Your task to perform on an android device: What's a good restaurant in New York? Image 0: 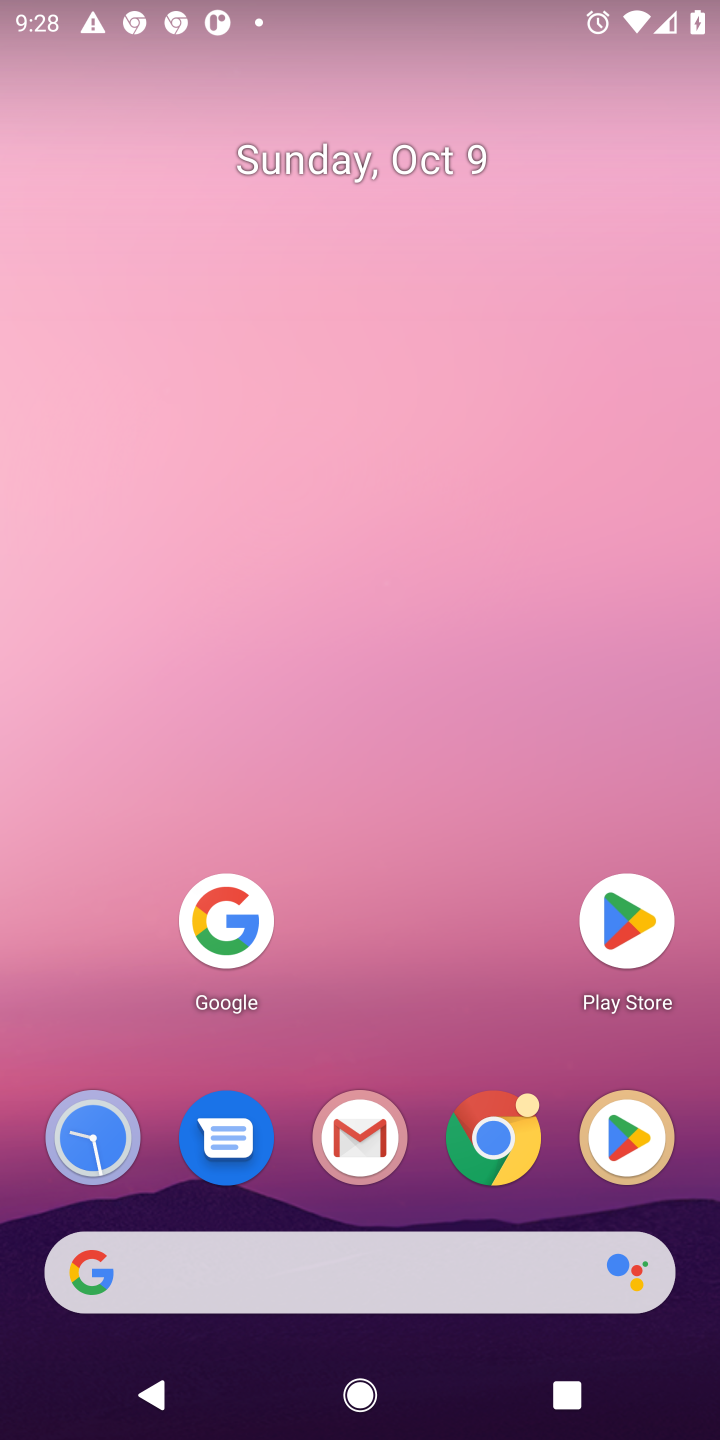
Step 0: click (230, 904)
Your task to perform on an android device: What's a good restaurant in New York? Image 1: 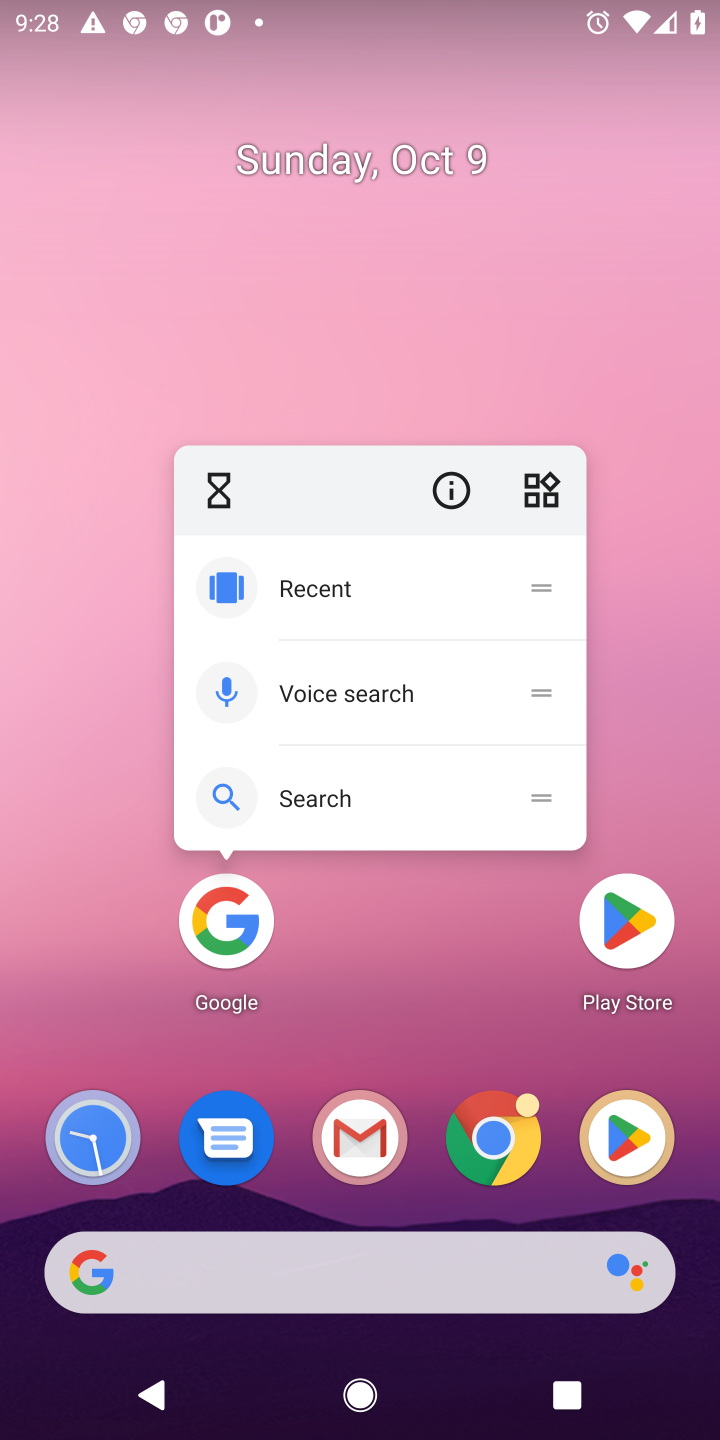
Step 1: click (219, 915)
Your task to perform on an android device: What's a good restaurant in New York? Image 2: 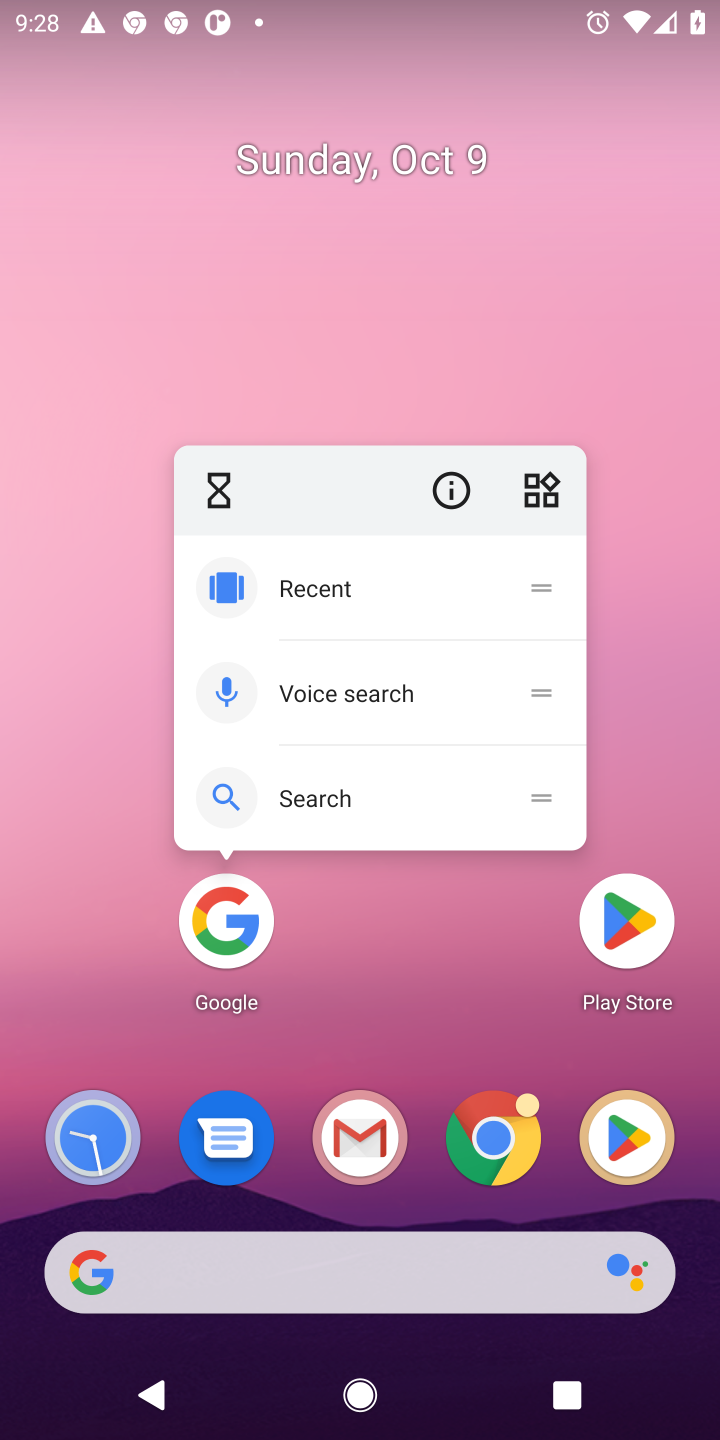
Step 2: click (219, 915)
Your task to perform on an android device: What's a good restaurant in New York? Image 3: 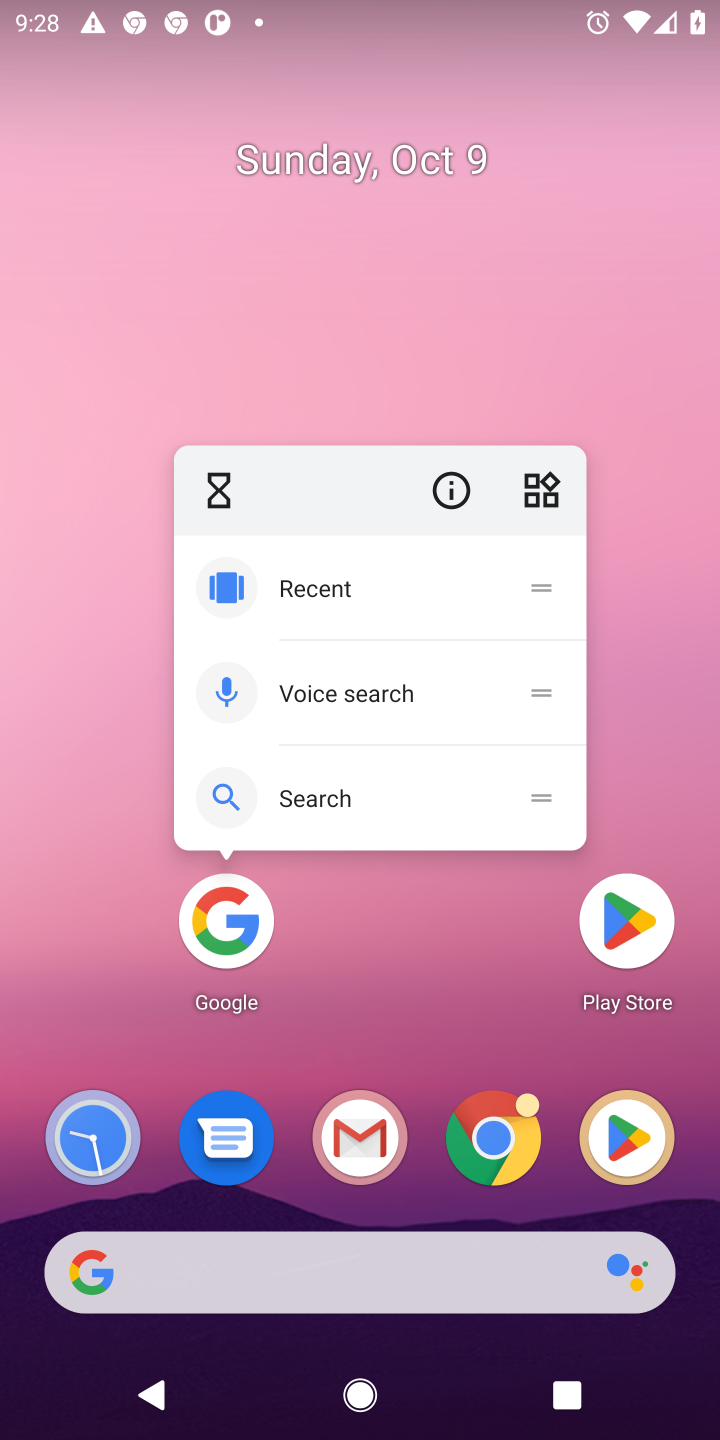
Step 3: click (219, 915)
Your task to perform on an android device: What's a good restaurant in New York? Image 4: 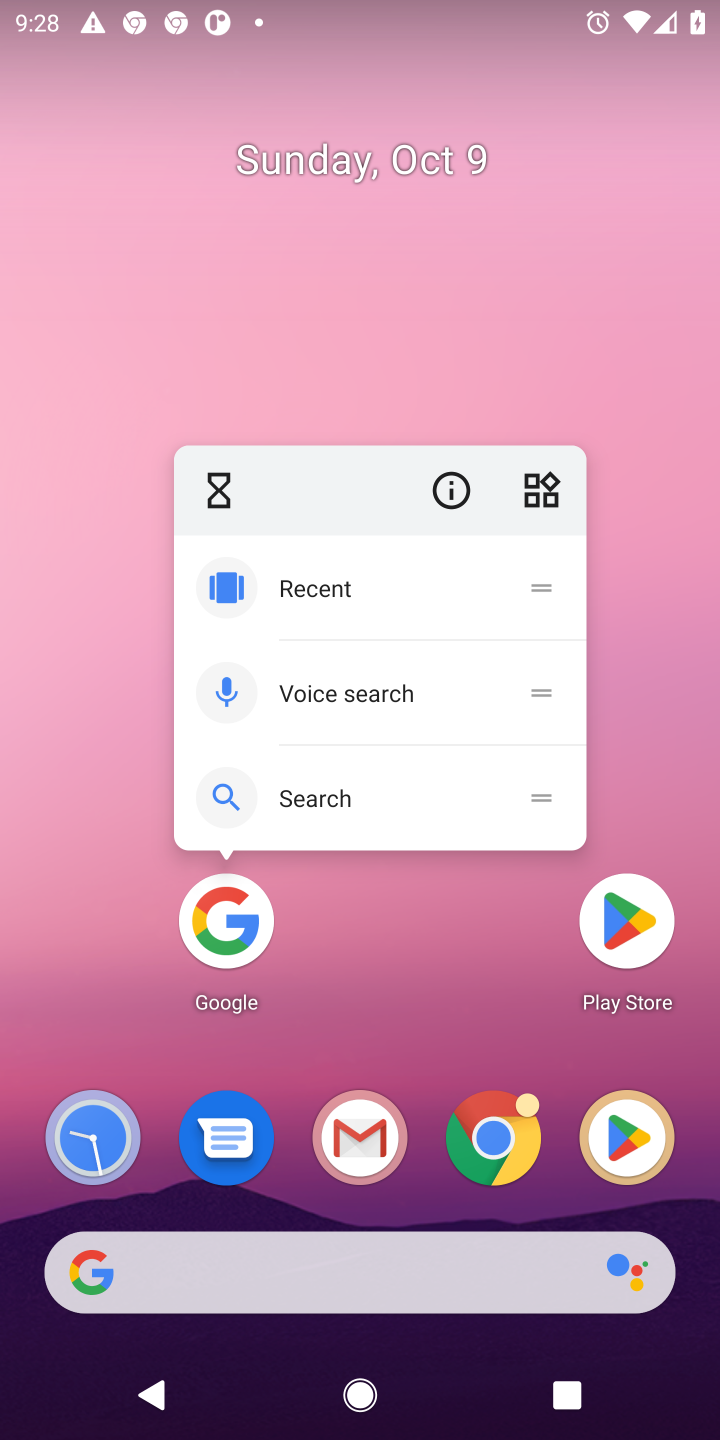
Step 4: click (221, 921)
Your task to perform on an android device: What's a good restaurant in New York? Image 5: 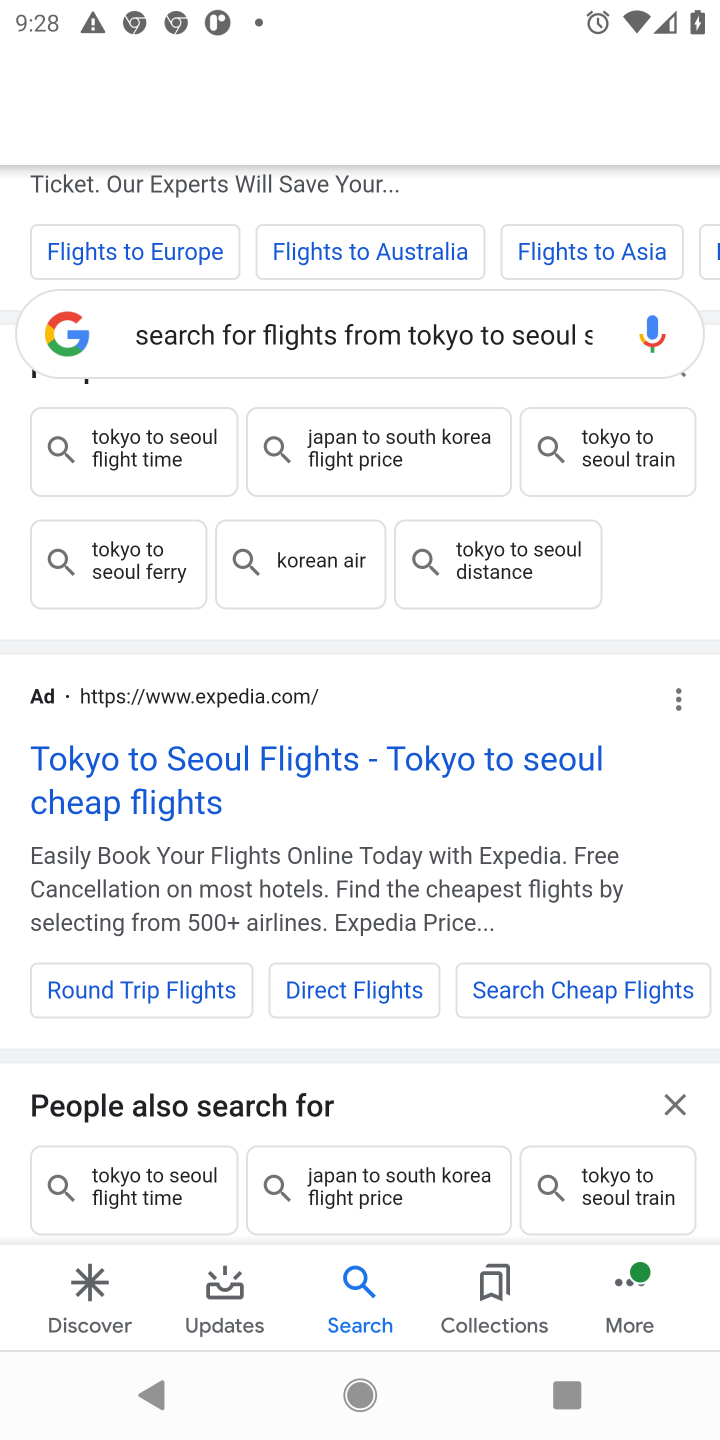
Step 5: click (464, 334)
Your task to perform on an android device: What's a good restaurant in New York? Image 6: 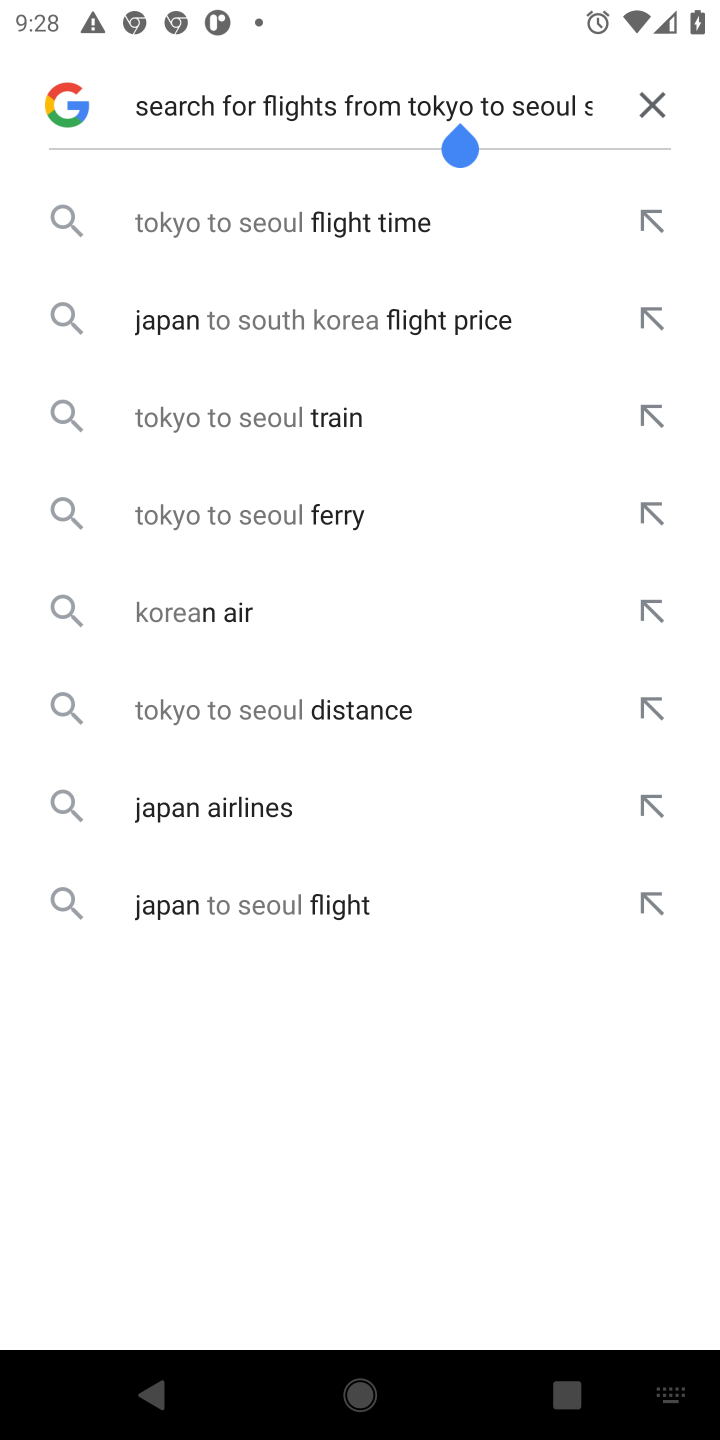
Step 6: click (649, 105)
Your task to perform on an android device: What's a good restaurant in New York? Image 7: 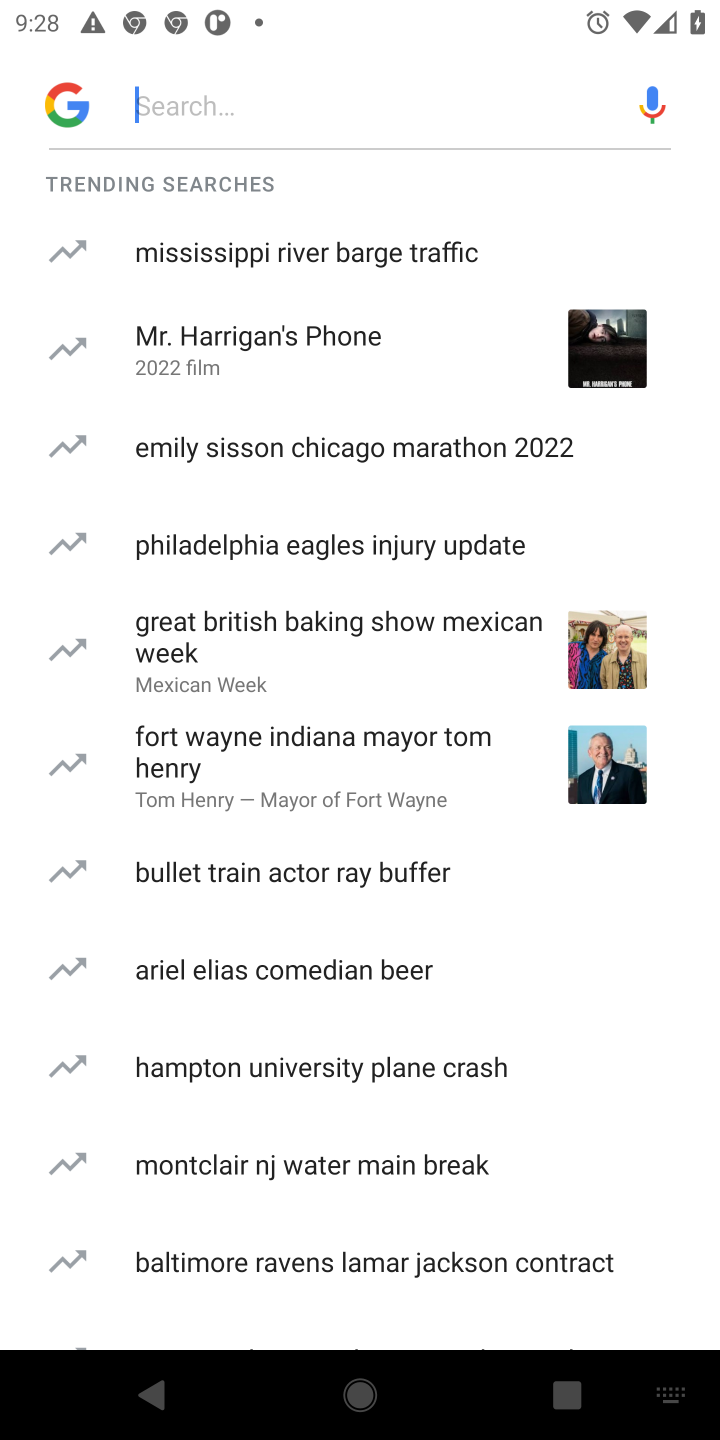
Step 7: click (348, 111)
Your task to perform on an android device: What's a good restaurant in New York? Image 8: 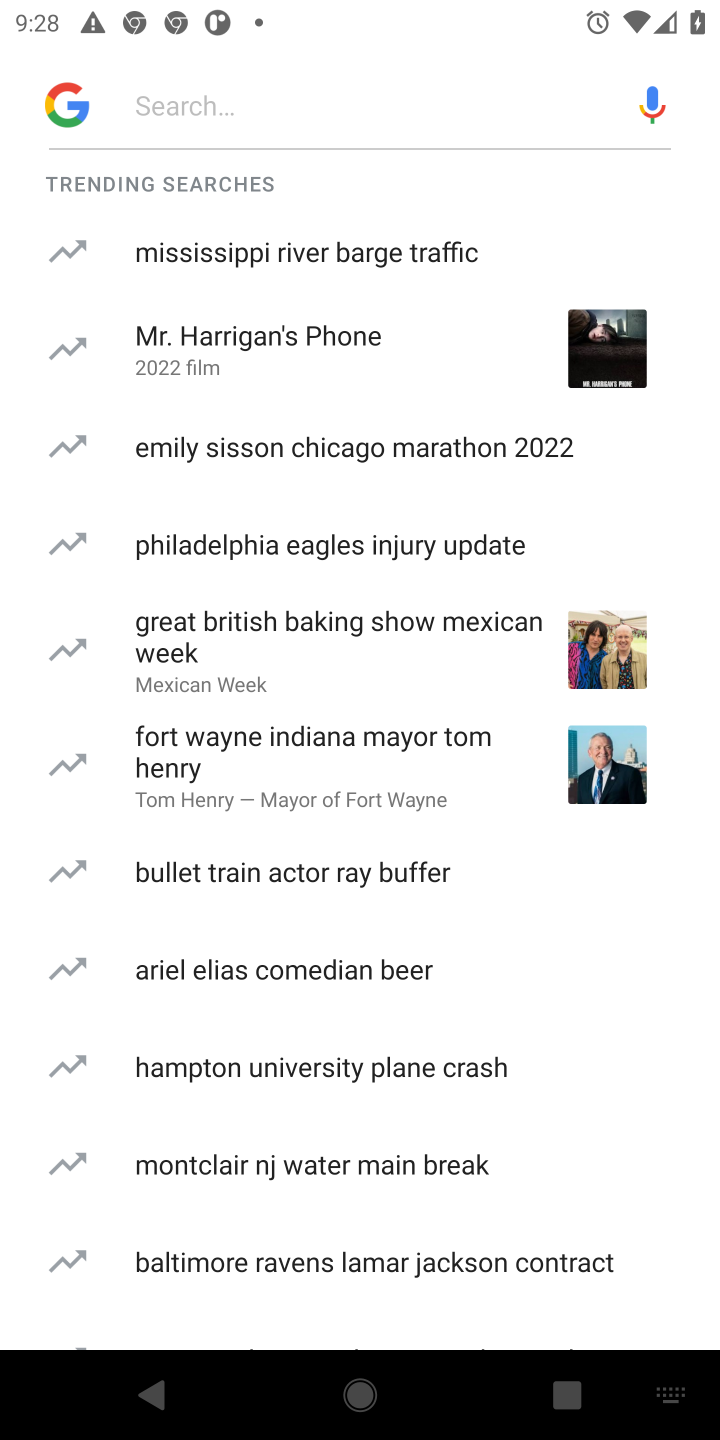
Step 8: type "What's a good restaurant in New York? "
Your task to perform on an android device: What's a good restaurant in New York? Image 9: 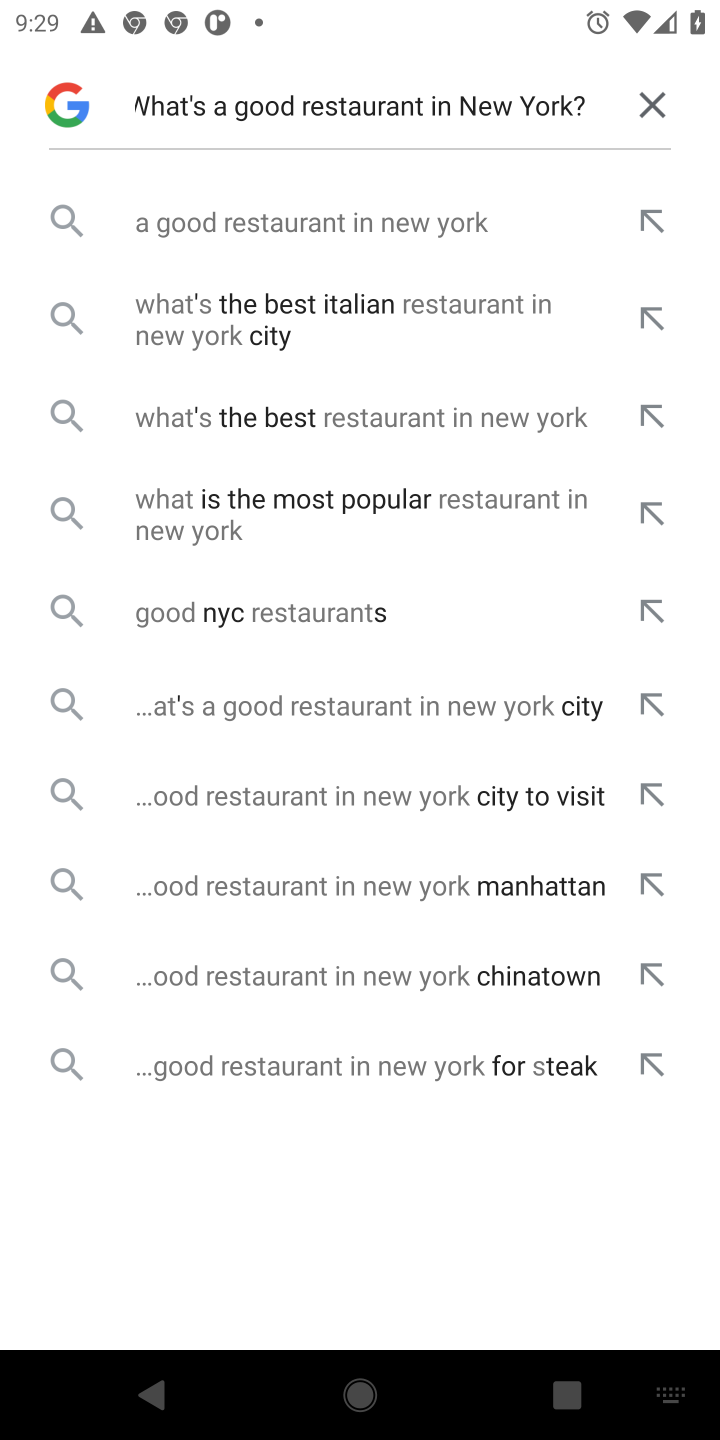
Step 9: click (349, 227)
Your task to perform on an android device: What's a good restaurant in New York? Image 10: 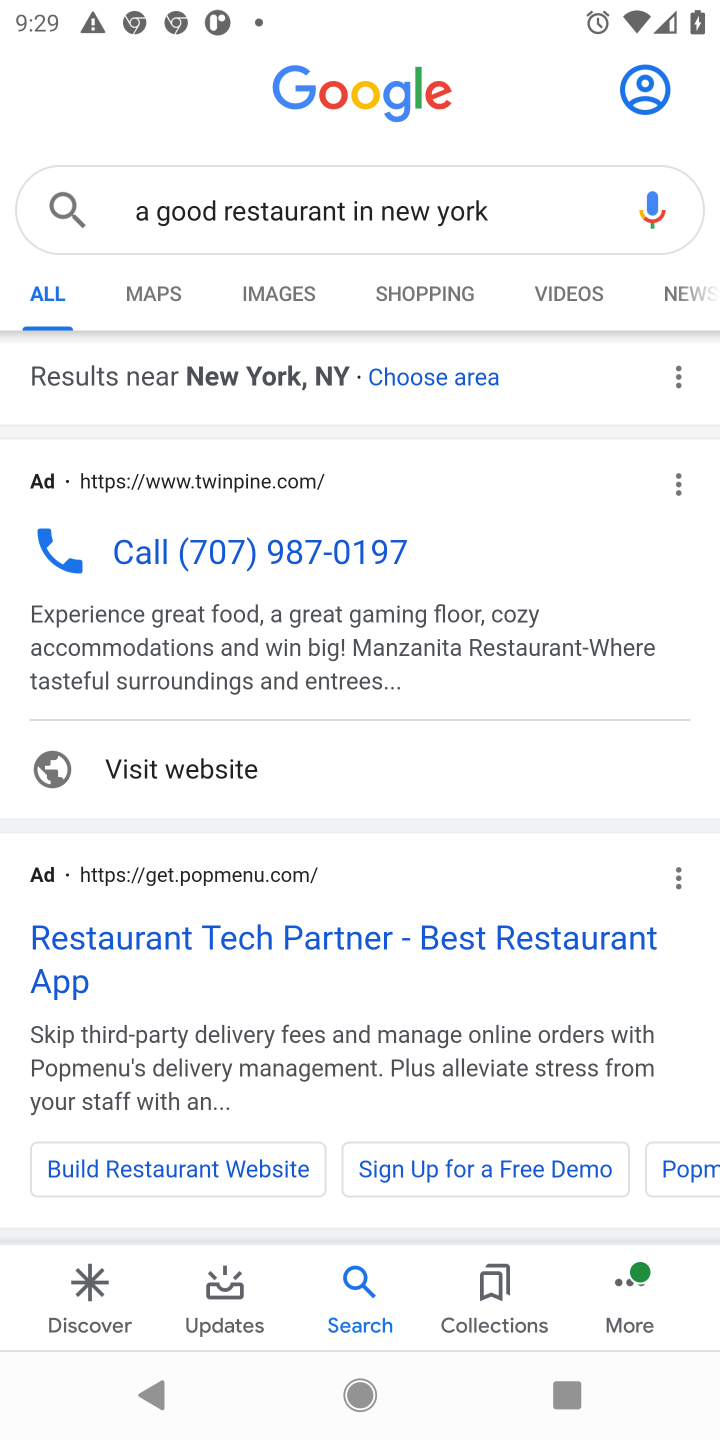
Step 10: click (114, 942)
Your task to perform on an android device: What's a good restaurant in New York? Image 11: 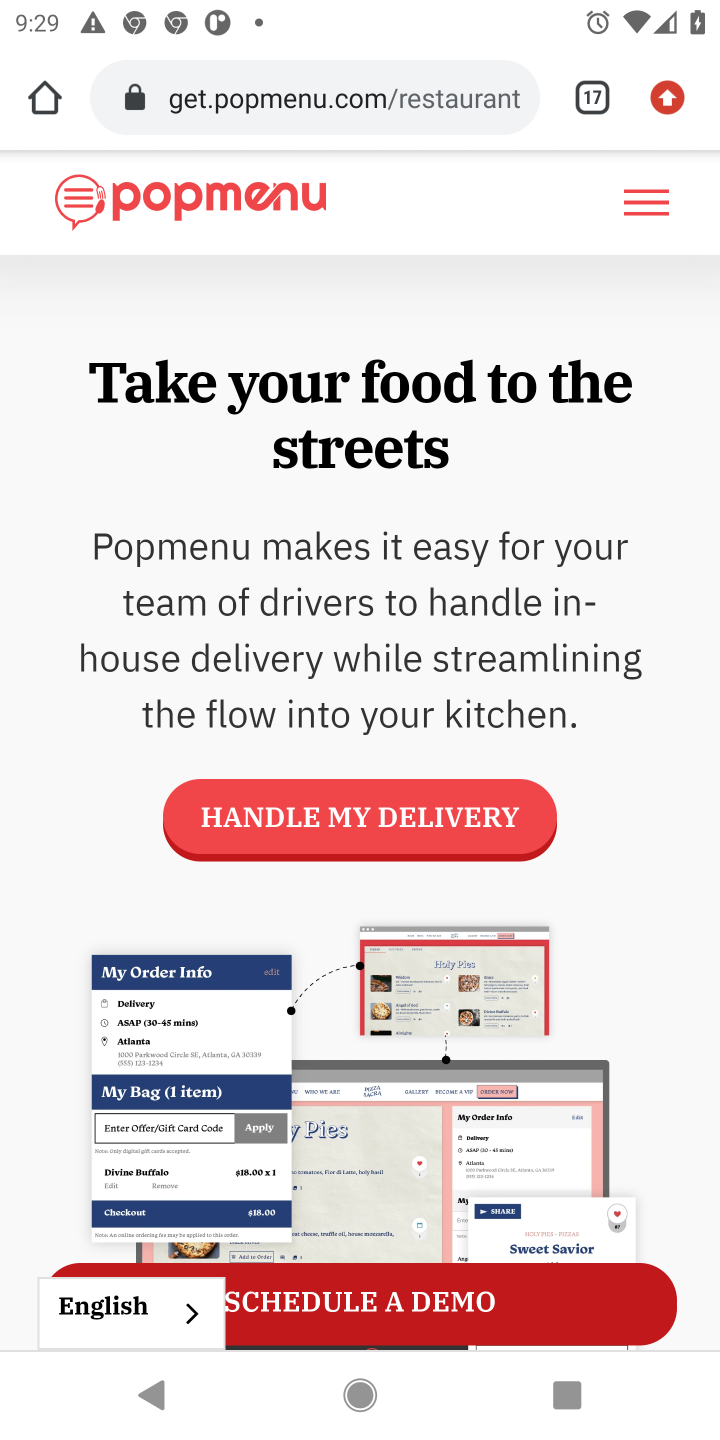
Step 11: drag from (589, 1141) to (607, 324)
Your task to perform on an android device: What's a good restaurant in New York? Image 12: 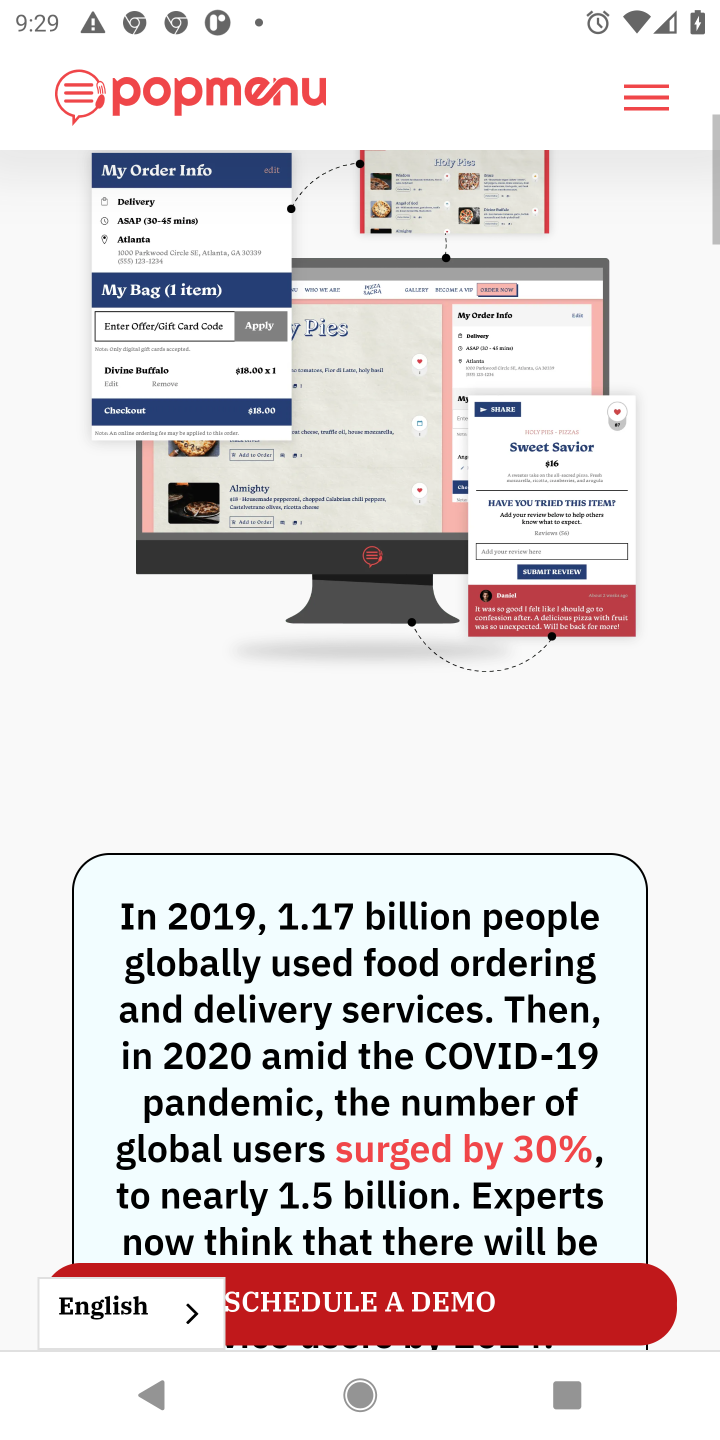
Step 12: drag from (237, 1111) to (243, 593)
Your task to perform on an android device: What's a good restaurant in New York? Image 13: 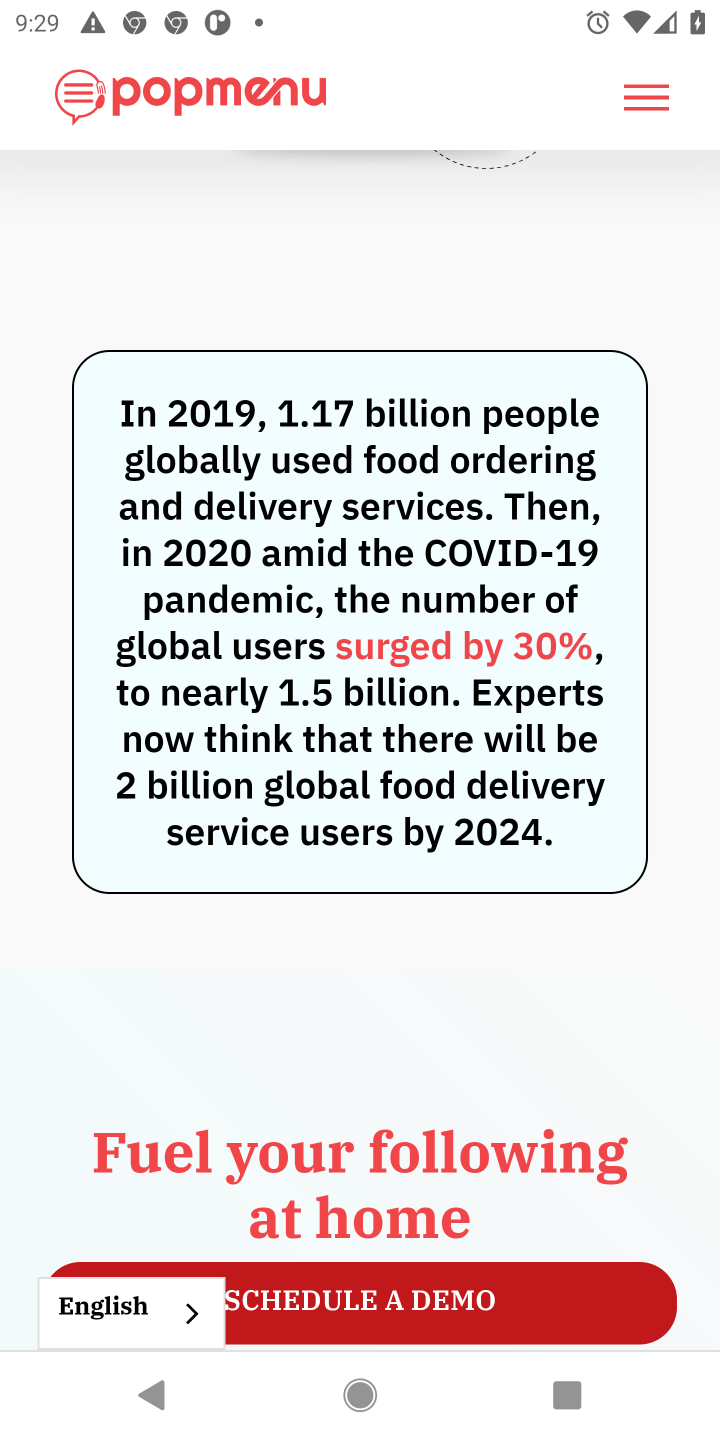
Step 13: press back button
Your task to perform on an android device: What's a good restaurant in New York? Image 14: 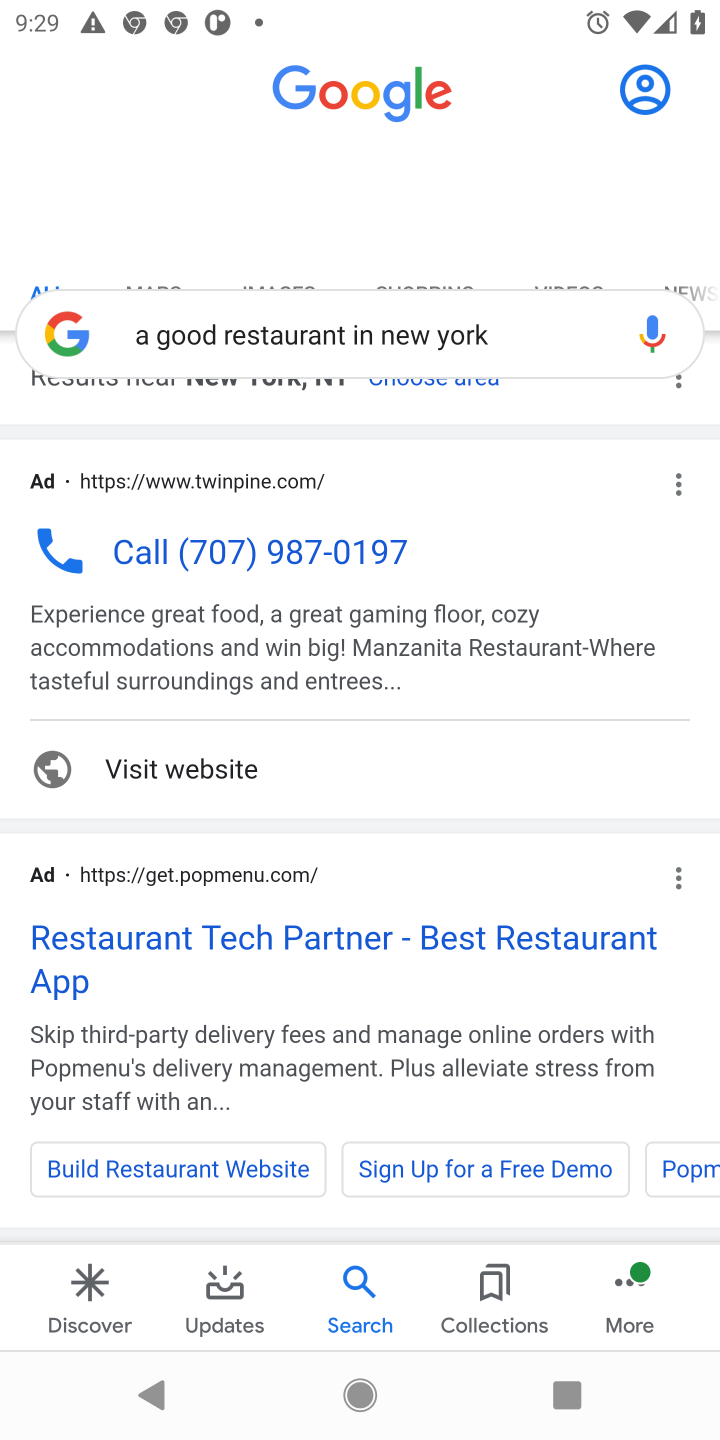
Step 14: drag from (363, 1161) to (457, 303)
Your task to perform on an android device: What's a good restaurant in New York? Image 15: 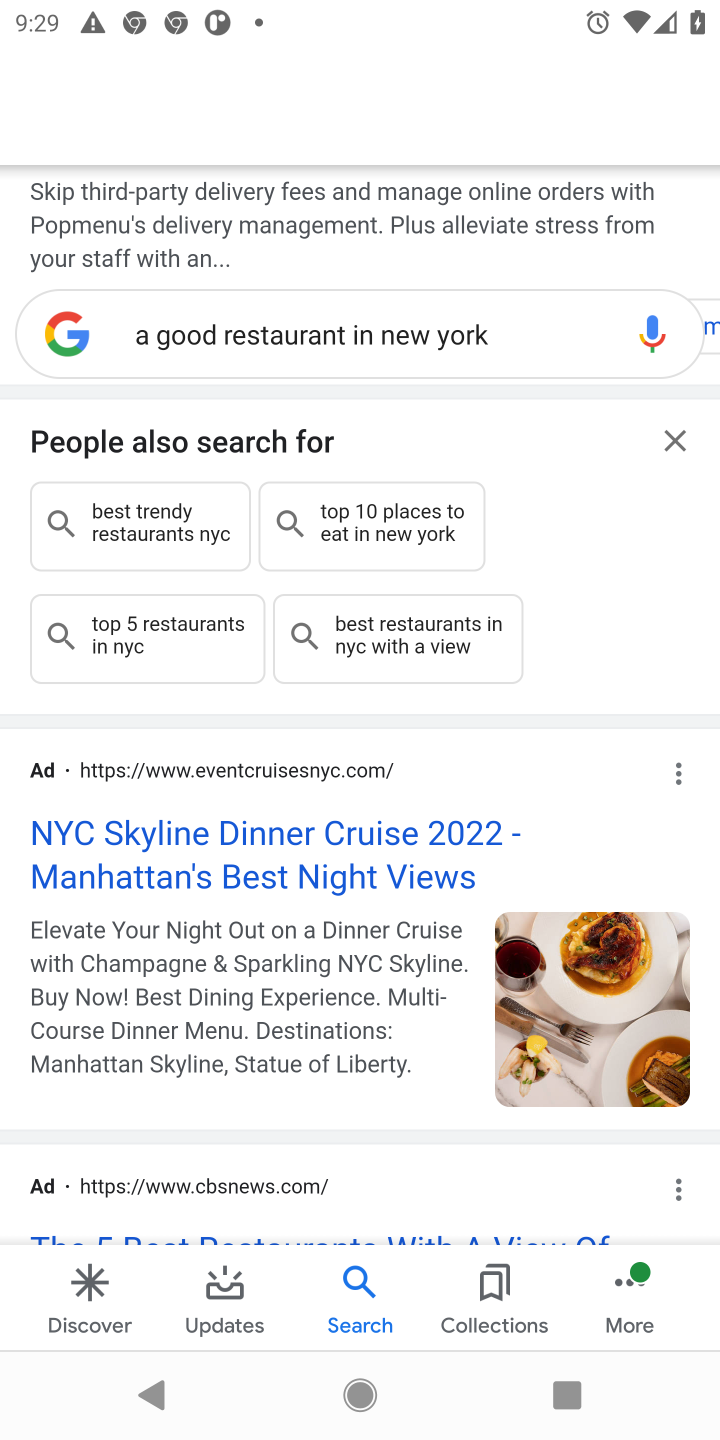
Step 15: drag from (370, 331) to (441, 1207)
Your task to perform on an android device: What's a good restaurant in New York? Image 16: 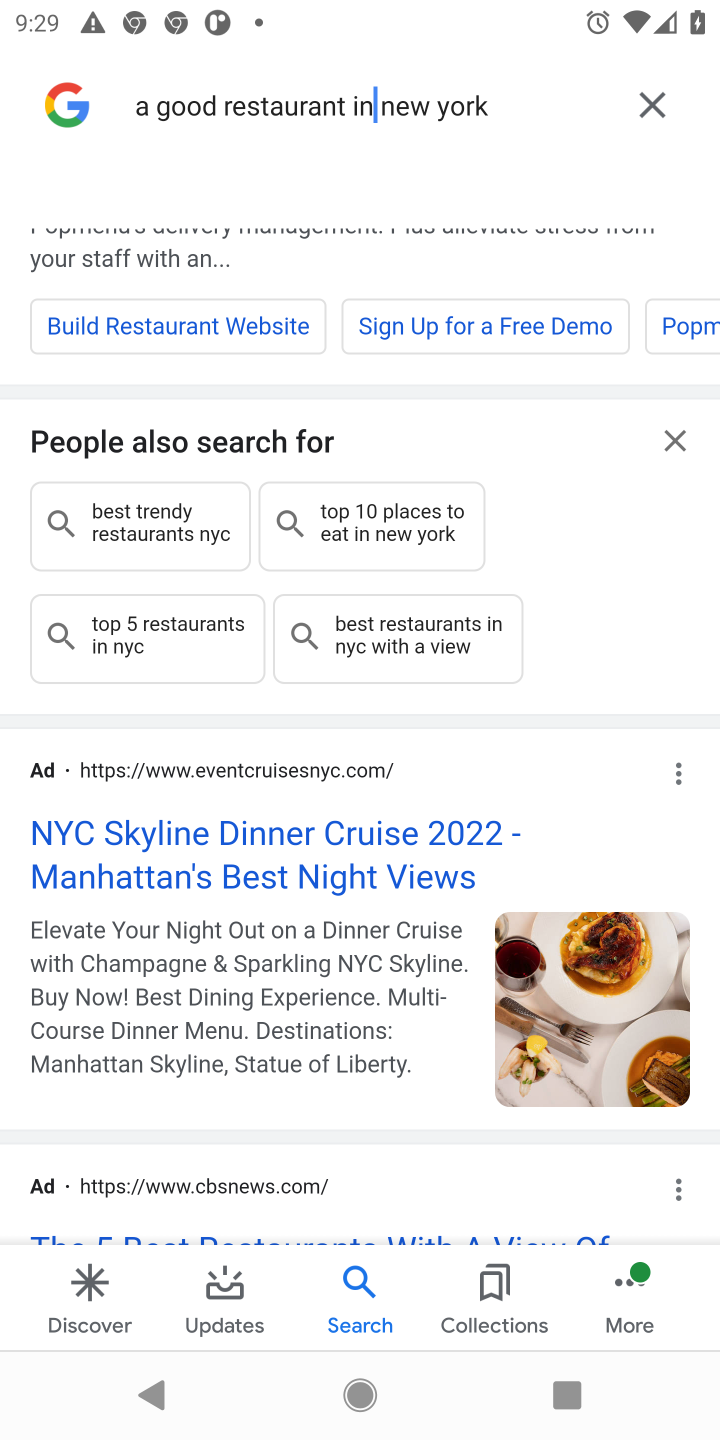
Step 16: drag from (276, 419) to (335, 1288)
Your task to perform on an android device: What's a good restaurant in New York? Image 17: 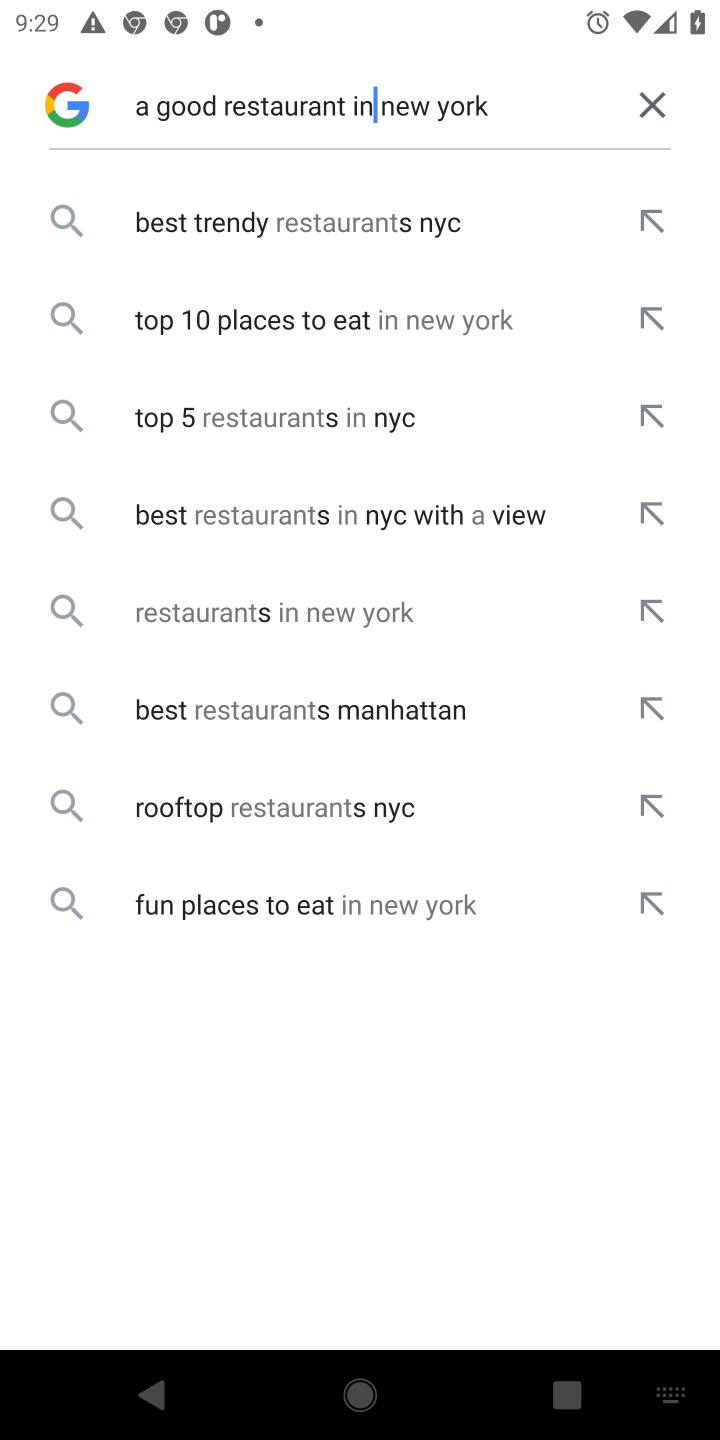
Step 17: click (260, 402)
Your task to perform on an android device: What's a good restaurant in New York? Image 18: 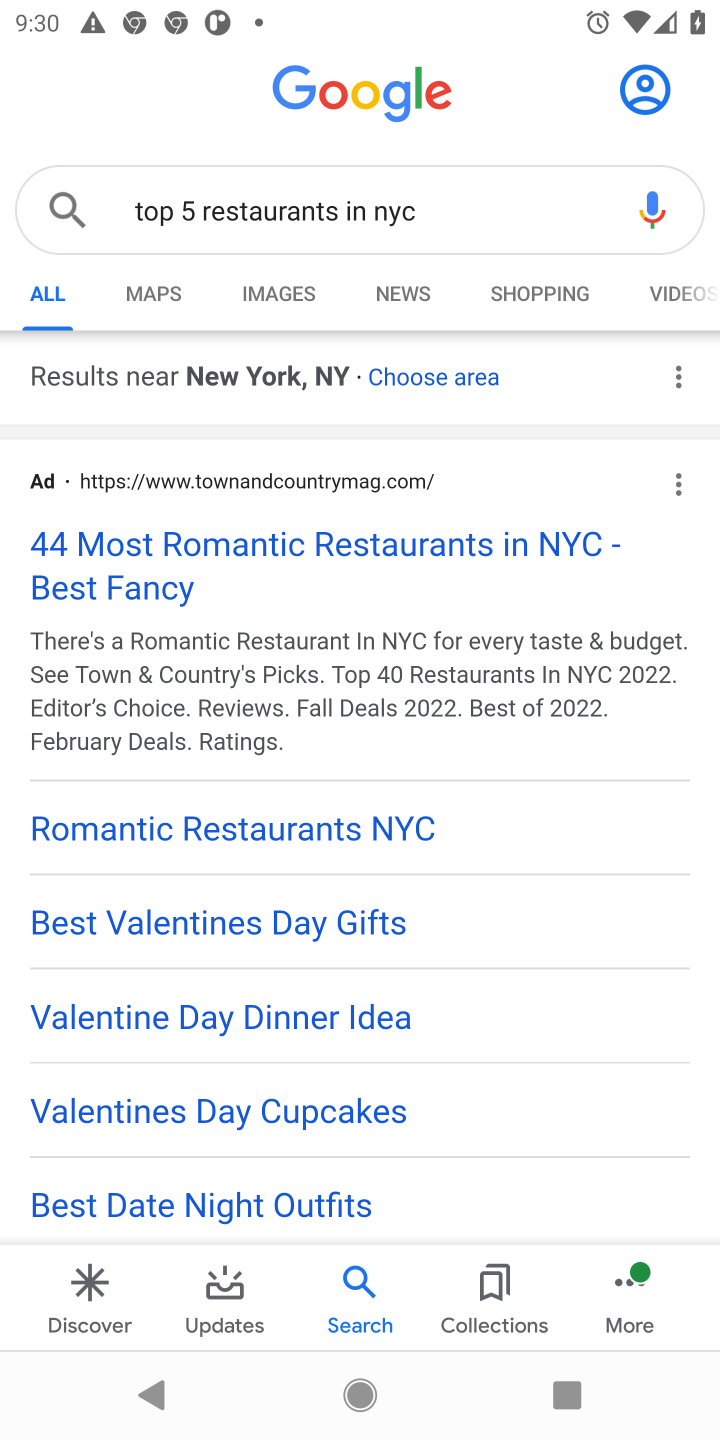
Step 18: drag from (295, 1181) to (375, 474)
Your task to perform on an android device: What's a good restaurant in New York? Image 19: 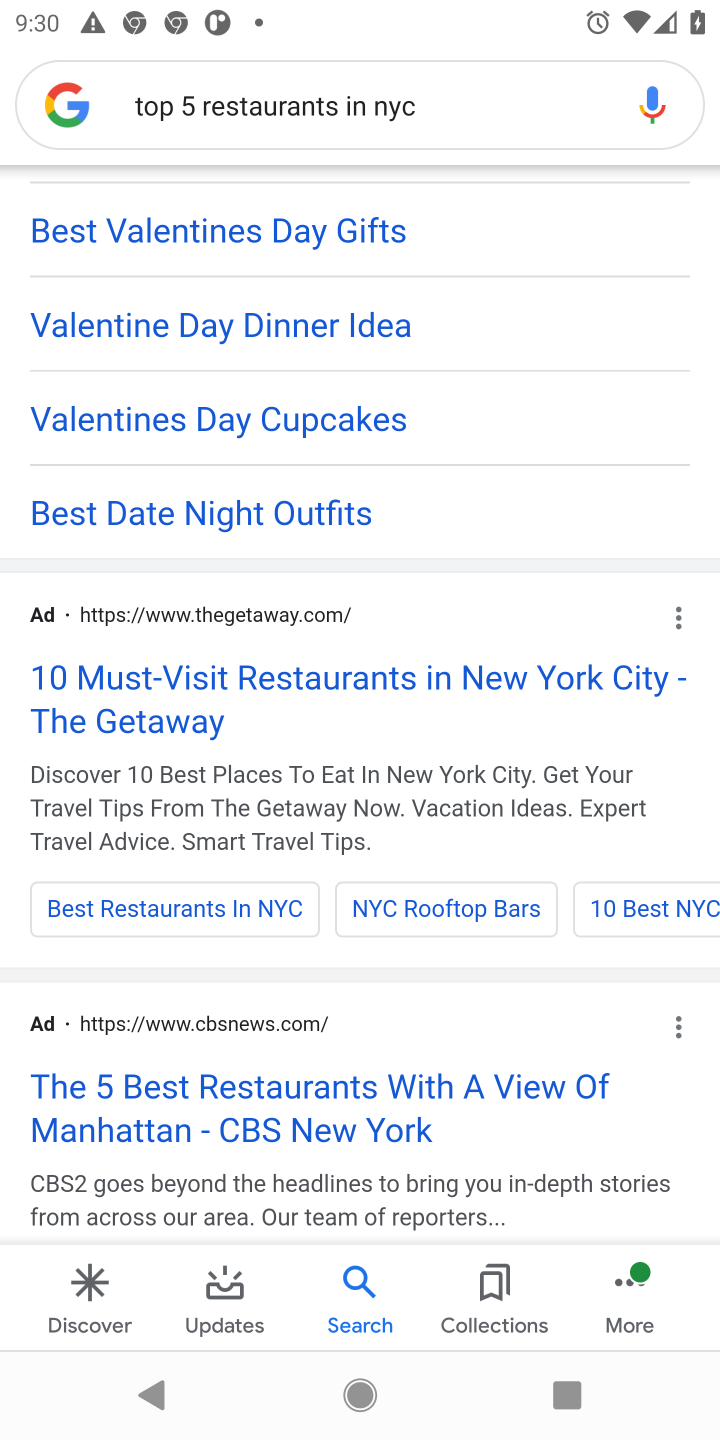
Step 19: drag from (334, 957) to (363, 660)
Your task to perform on an android device: What's a good restaurant in New York? Image 20: 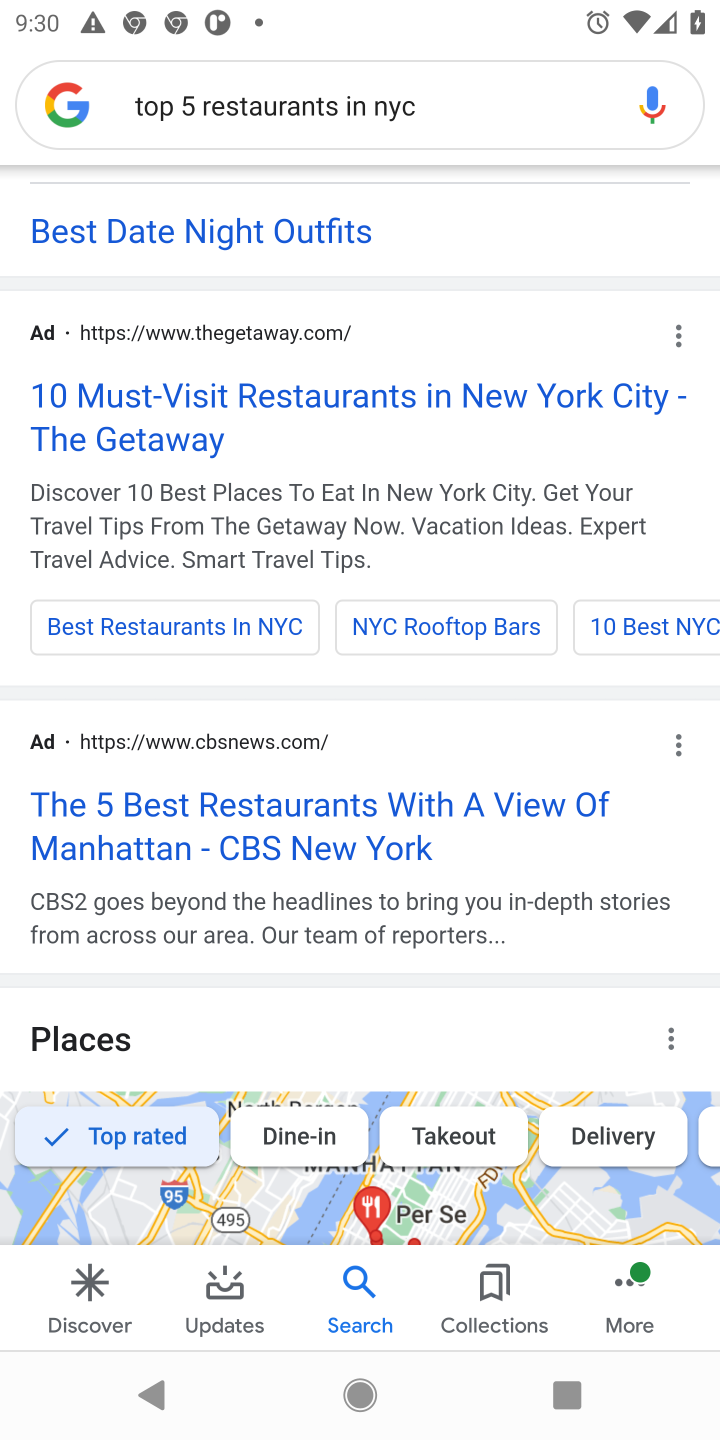
Step 20: click (238, 822)
Your task to perform on an android device: What's a good restaurant in New York? Image 21: 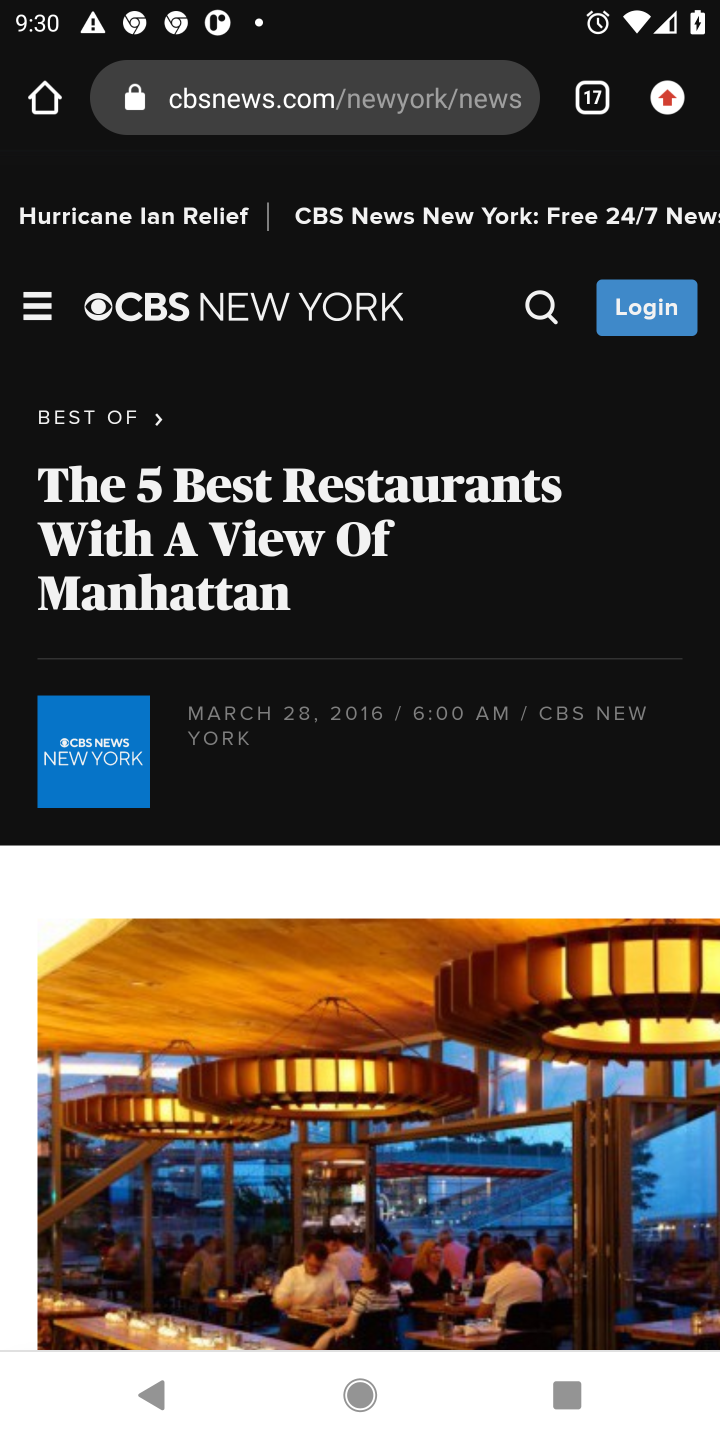
Step 21: task complete